Your task to perform on an android device: Open the calendar and show me this week's events? Image 0: 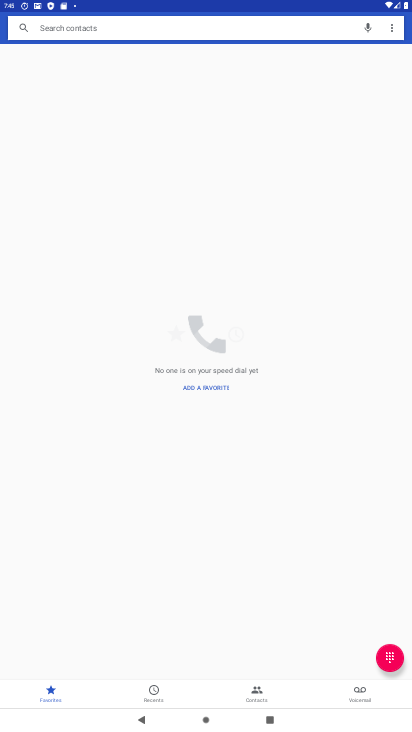
Step 0: press home button
Your task to perform on an android device: Open the calendar and show me this week's events? Image 1: 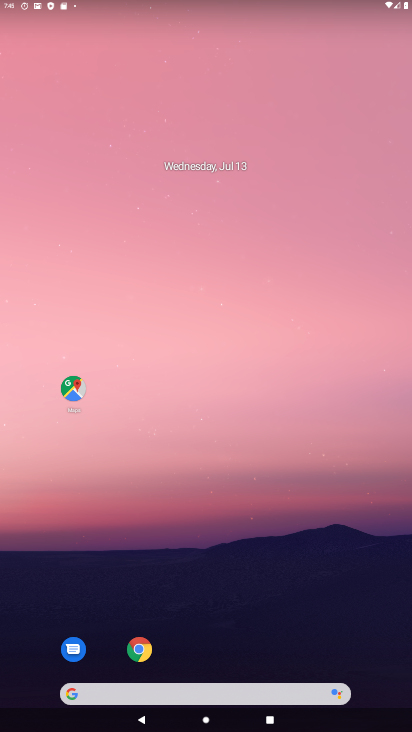
Step 1: drag from (190, 603) to (239, 207)
Your task to perform on an android device: Open the calendar and show me this week's events? Image 2: 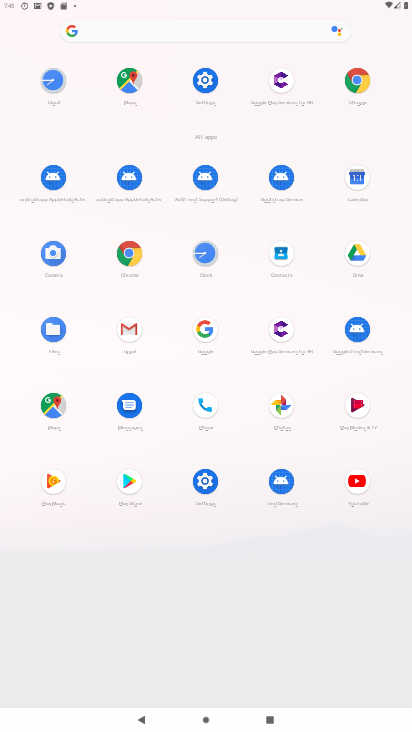
Step 2: click (360, 183)
Your task to perform on an android device: Open the calendar and show me this week's events? Image 3: 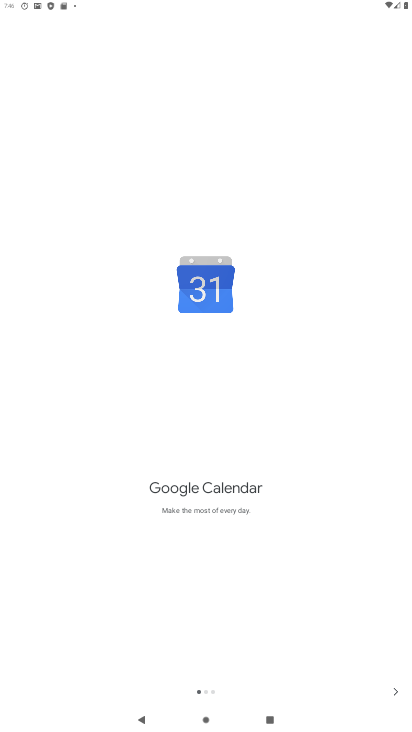
Step 3: click (392, 691)
Your task to perform on an android device: Open the calendar and show me this week's events? Image 4: 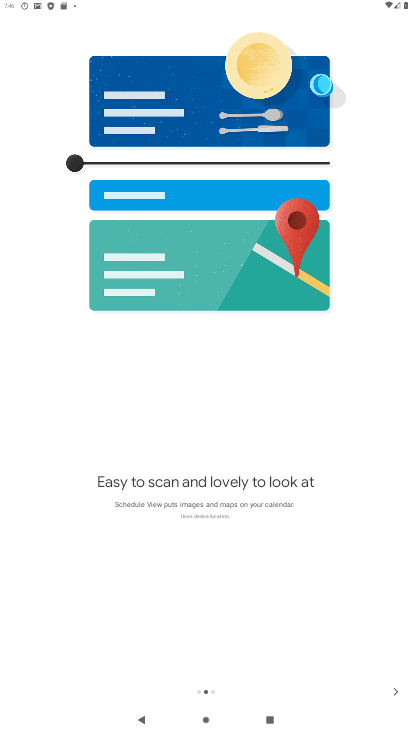
Step 4: click (392, 689)
Your task to perform on an android device: Open the calendar and show me this week's events? Image 5: 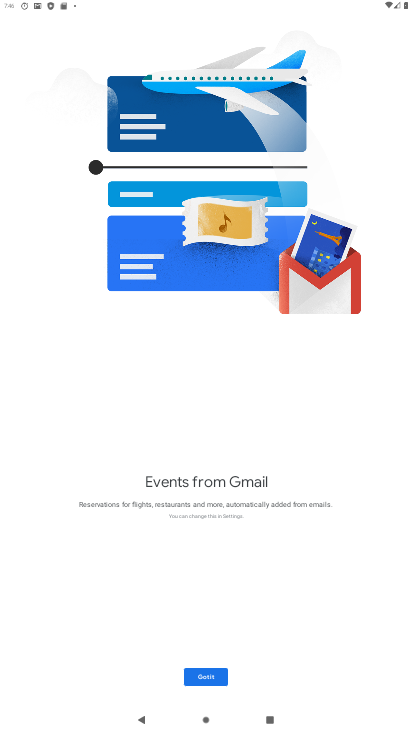
Step 5: click (209, 676)
Your task to perform on an android device: Open the calendar and show me this week's events? Image 6: 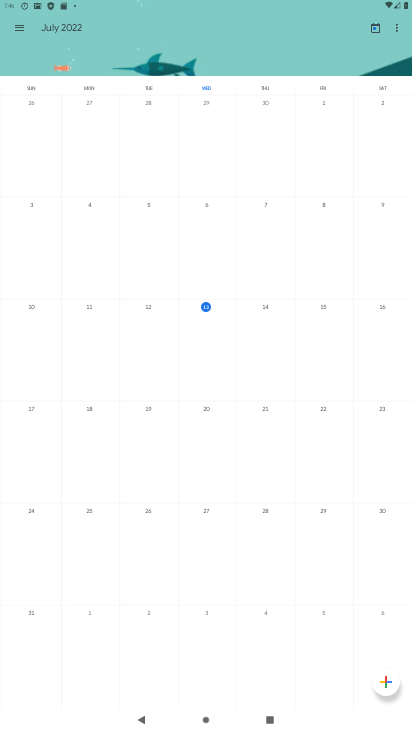
Step 6: click (18, 29)
Your task to perform on an android device: Open the calendar and show me this week's events? Image 7: 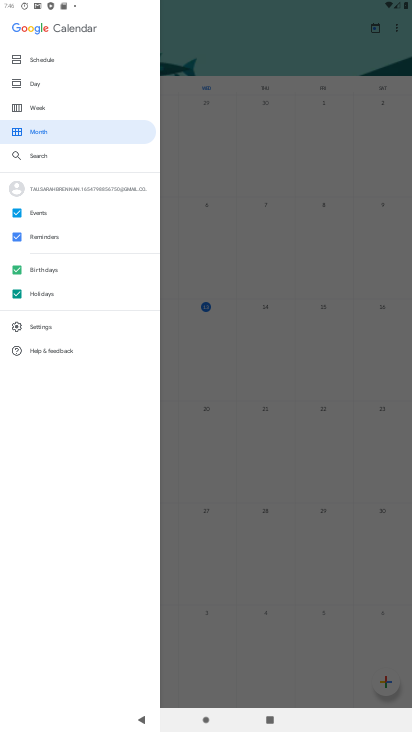
Step 7: click (51, 231)
Your task to perform on an android device: Open the calendar and show me this week's events? Image 8: 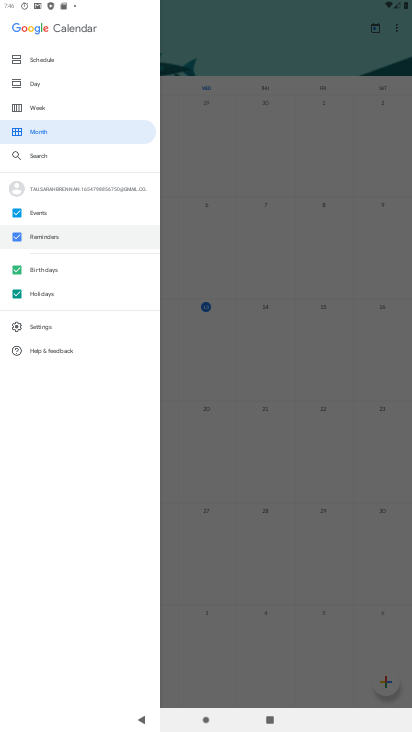
Step 8: click (42, 277)
Your task to perform on an android device: Open the calendar and show me this week's events? Image 9: 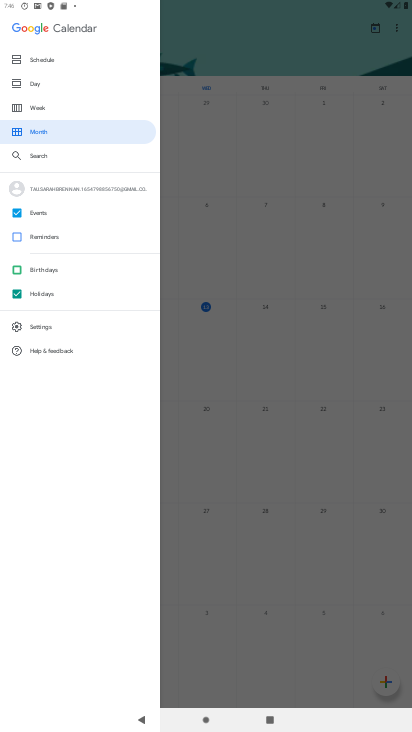
Step 9: click (42, 299)
Your task to perform on an android device: Open the calendar and show me this week's events? Image 10: 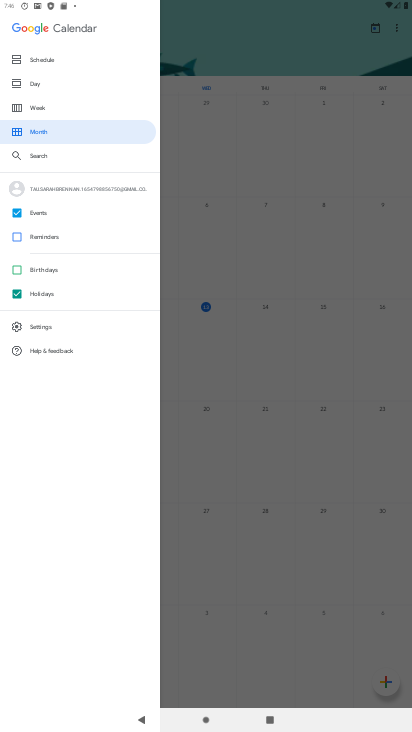
Step 10: click (29, 290)
Your task to perform on an android device: Open the calendar and show me this week's events? Image 11: 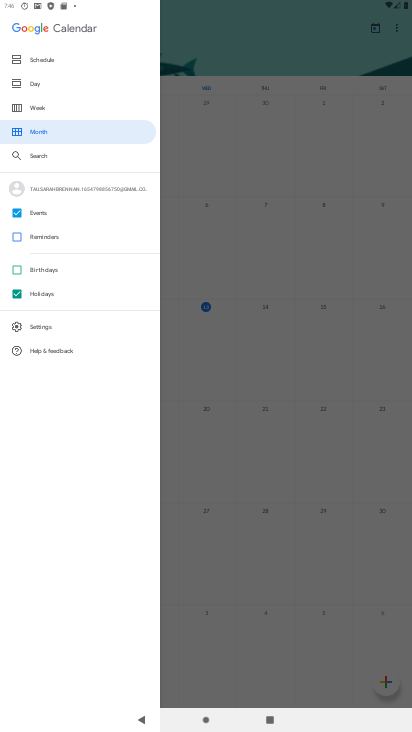
Step 11: click (36, 301)
Your task to perform on an android device: Open the calendar and show me this week's events? Image 12: 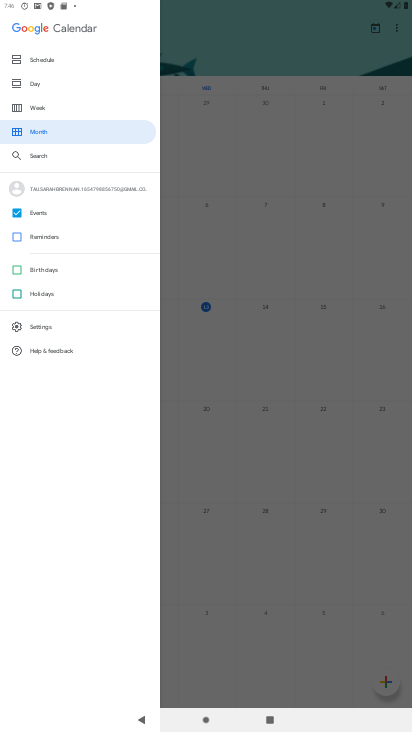
Step 12: click (35, 110)
Your task to perform on an android device: Open the calendar and show me this week's events? Image 13: 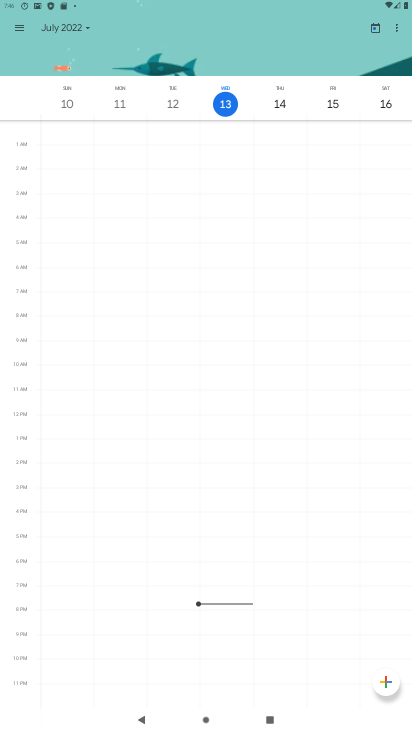
Step 13: task complete